Your task to perform on an android device: View the shopping cart on newegg. Add rayovac triple a to the cart on newegg, then select checkout. Image 0: 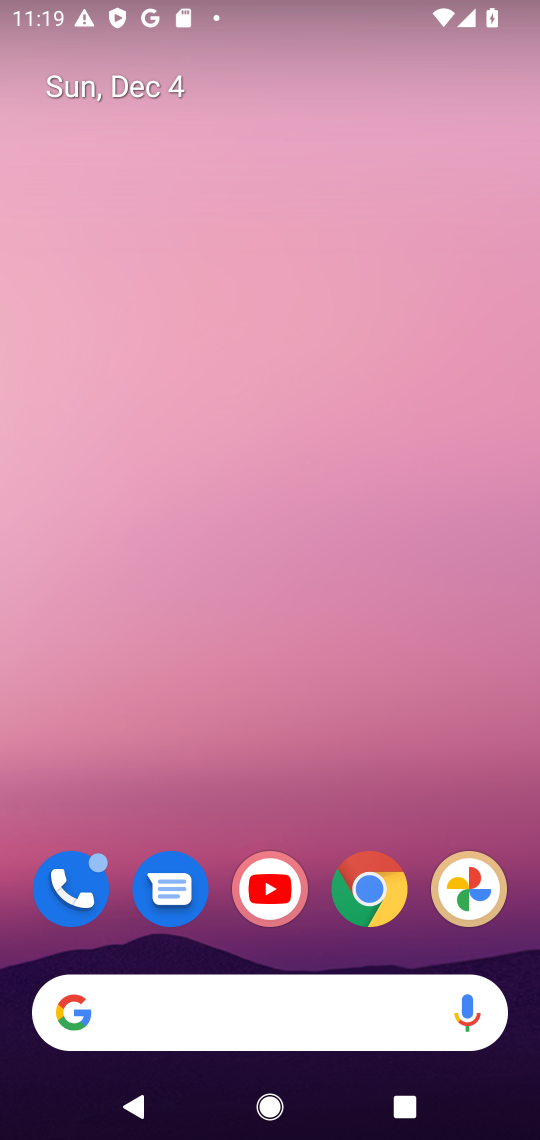
Step 0: click (368, 899)
Your task to perform on an android device: View the shopping cart on newegg. Add rayovac triple a to the cart on newegg, then select checkout. Image 1: 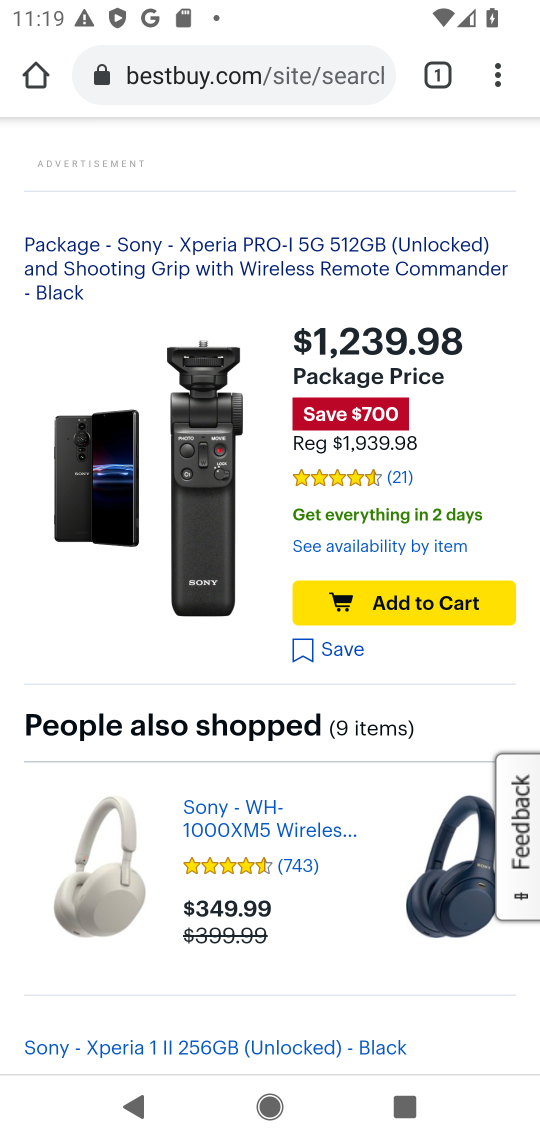
Step 1: click (309, 82)
Your task to perform on an android device: View the shopping cart on newegg. Add rayovac triple a to the cart on newegg, then select checkout. Image 2: 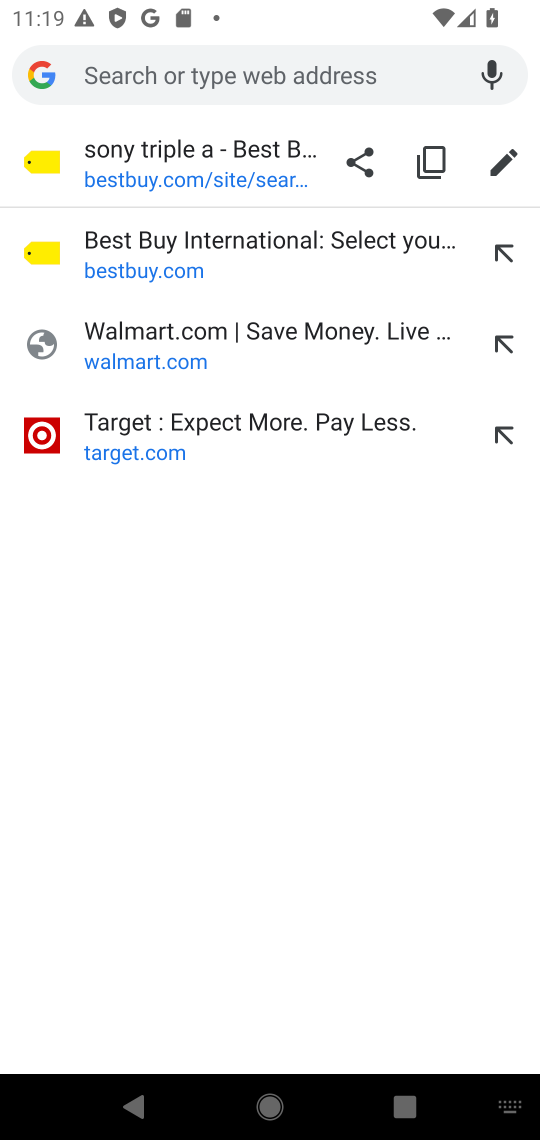
Step 2: press enter
Your task to perform on an android device: View the shopping cart on newegg. Add rayovac triple a to the cart on newegg, then select checkout. Image 3: 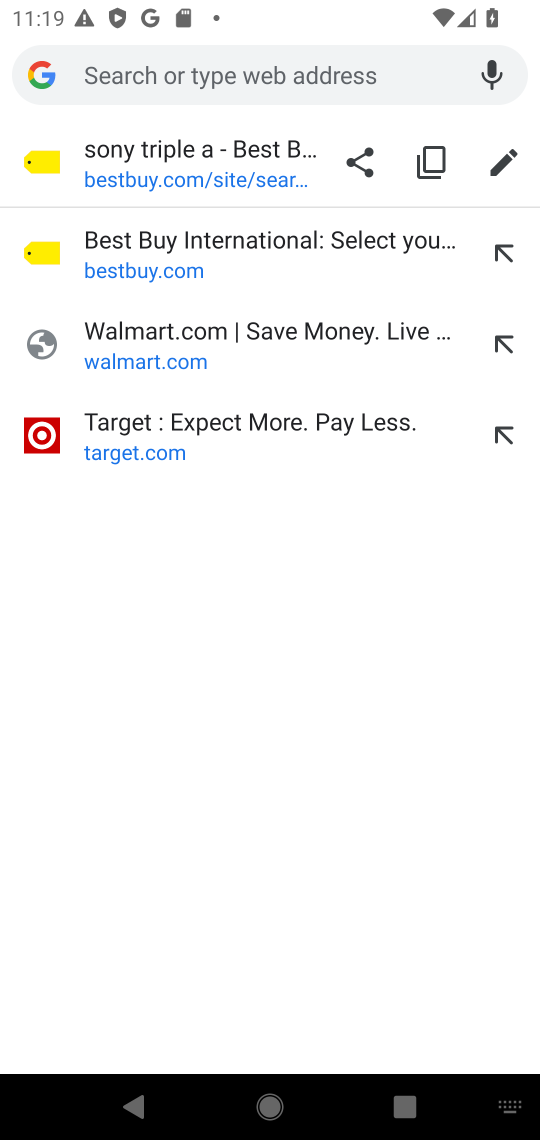
Step 3: type "newegg"
Your task to perform on an android device: View the shopping cart on newegg. Add rayovac triple a to the cart on newegg, then select checkout. Image 4: 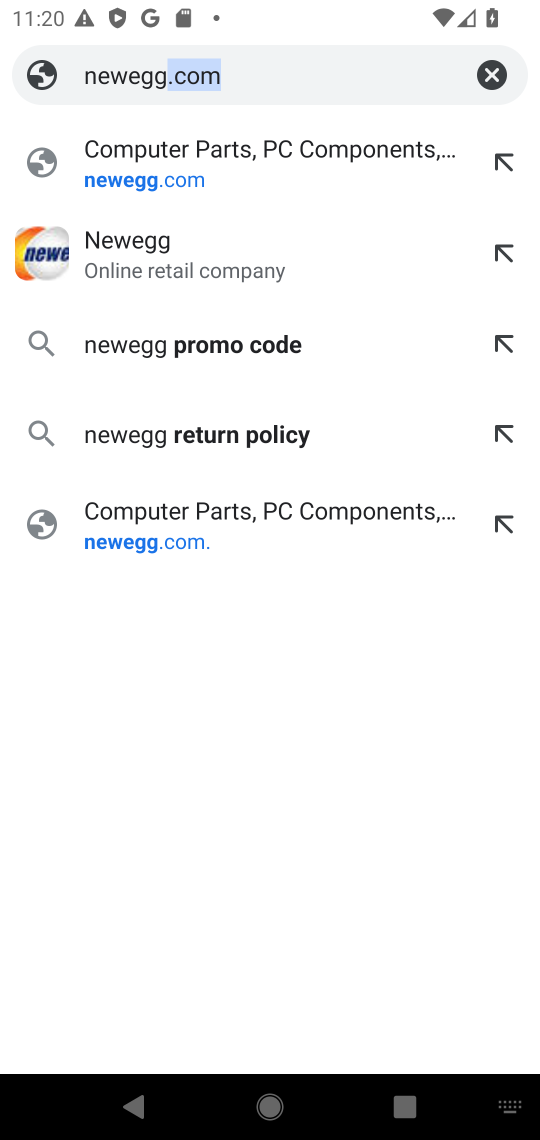
Step 4: click (343, 76)
Your task to perform on an android device: View the shopping cart on newegg. Add rayovac triple a to the cart on newegg, then select checkout. Image 5: 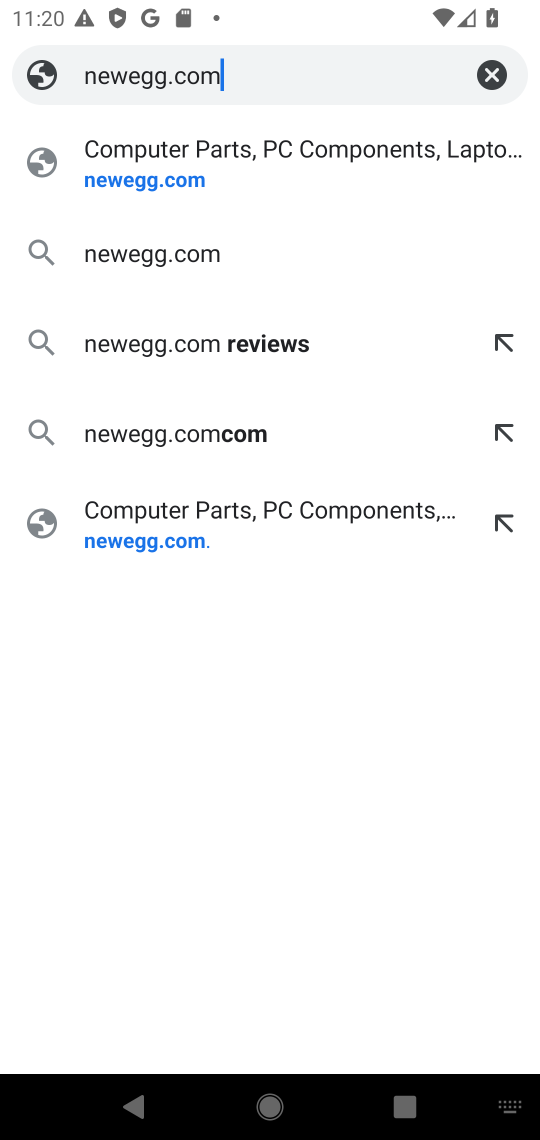
Step 5: click (192, 257)
Your task to perform on an android device: View the shopping cart on newegg. Add rayovac triple a to the cart on newegg, then select checkout. Image 6: 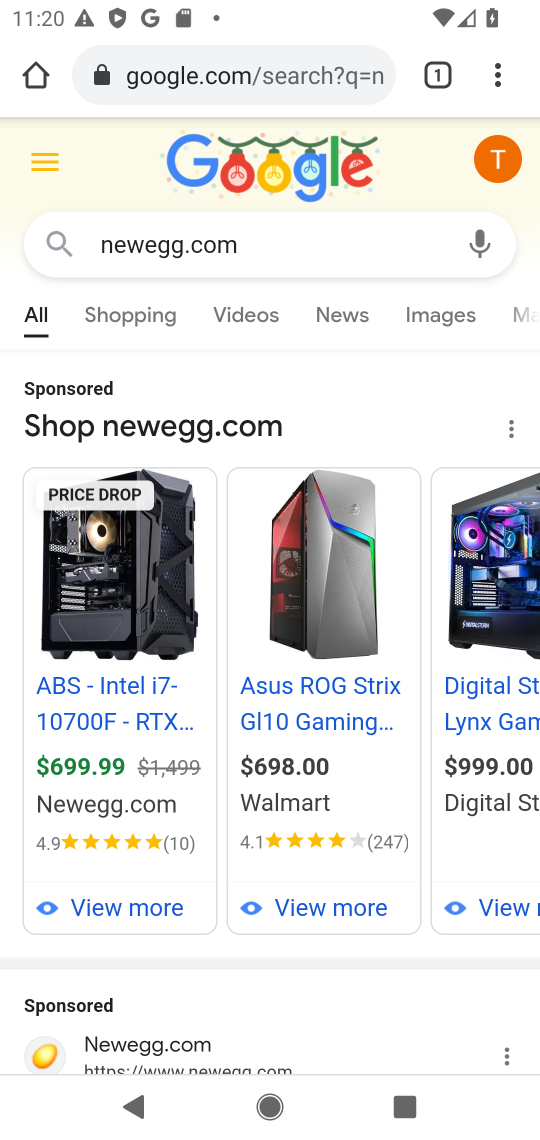
Step 6: drag from (346, 948) to (266, 339)
Your task to perform on an android device: View the shopping cart on newegg. Add rayovac triple a to the cart on newegg, then select checkout. Image 7: 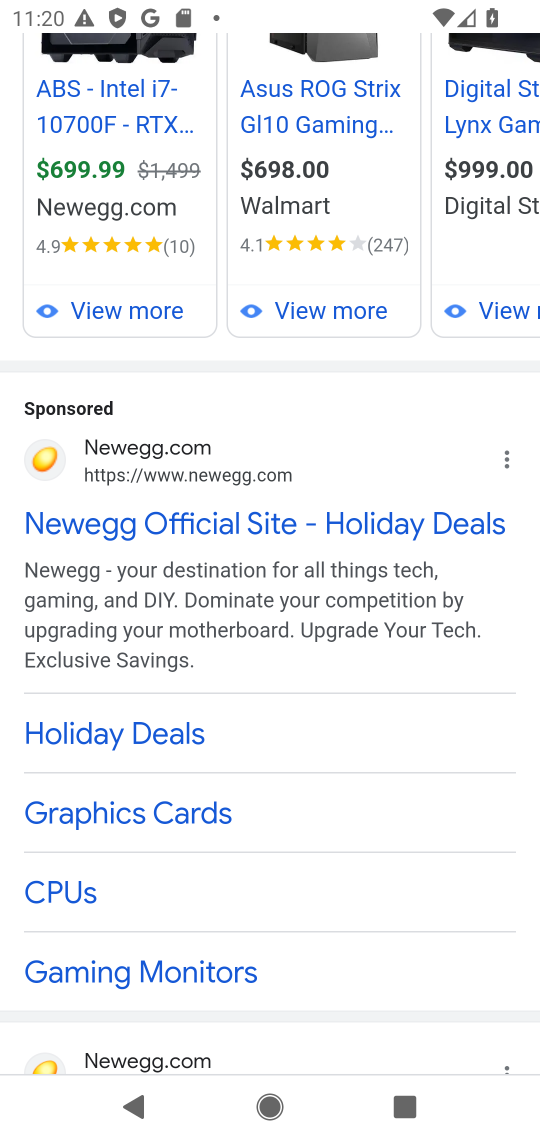
Step 7: click (231, 474)
Your task to perform on an android device: View the shopping cart on newegg. Add rayovac triple a to the cart on newegg, then select checkout. Image 8: 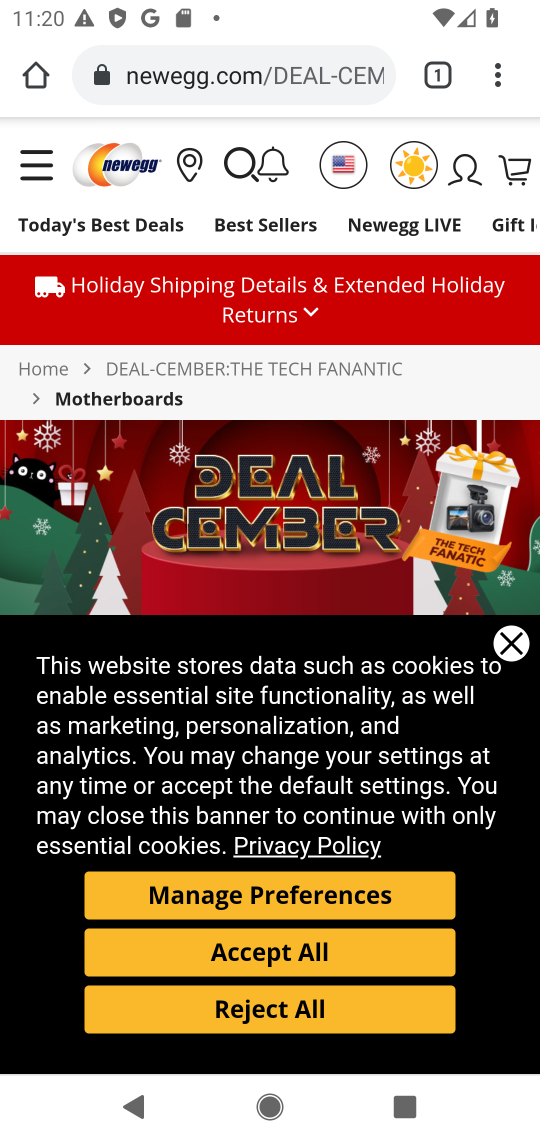
Step 8: click (275, 939)
Your task to perform on an android device: View the shopping cart on newegg. Add rayovac triple a to the cart on newegg, then select checkout. Image 9: 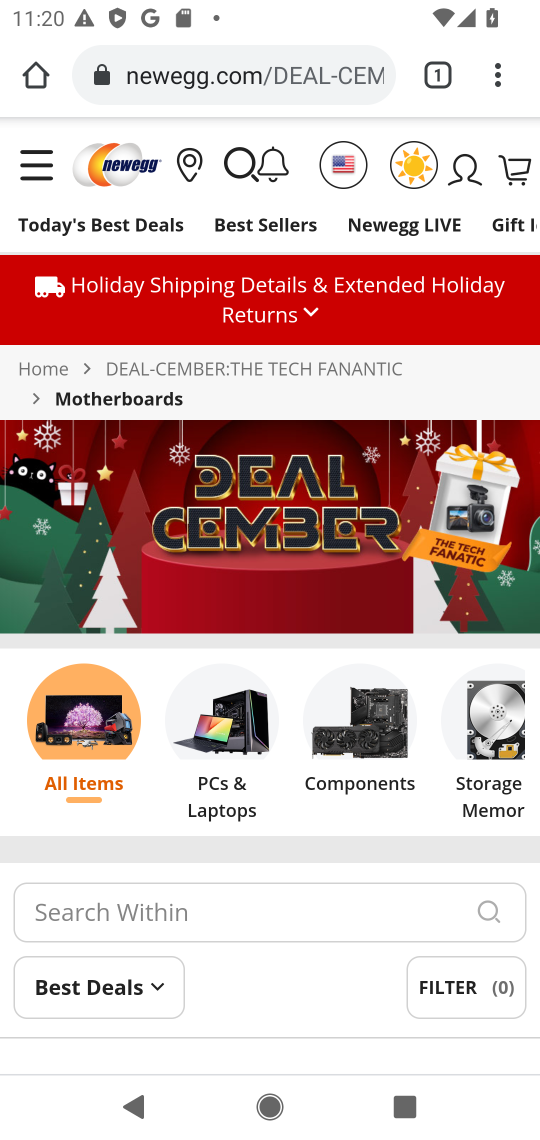
Step 9: click (239, 163)
Your task to perform on an android device: View the shopping cart on newegg. Add rayovac triple a to the cart on newegg, then select checkout. Image 10: 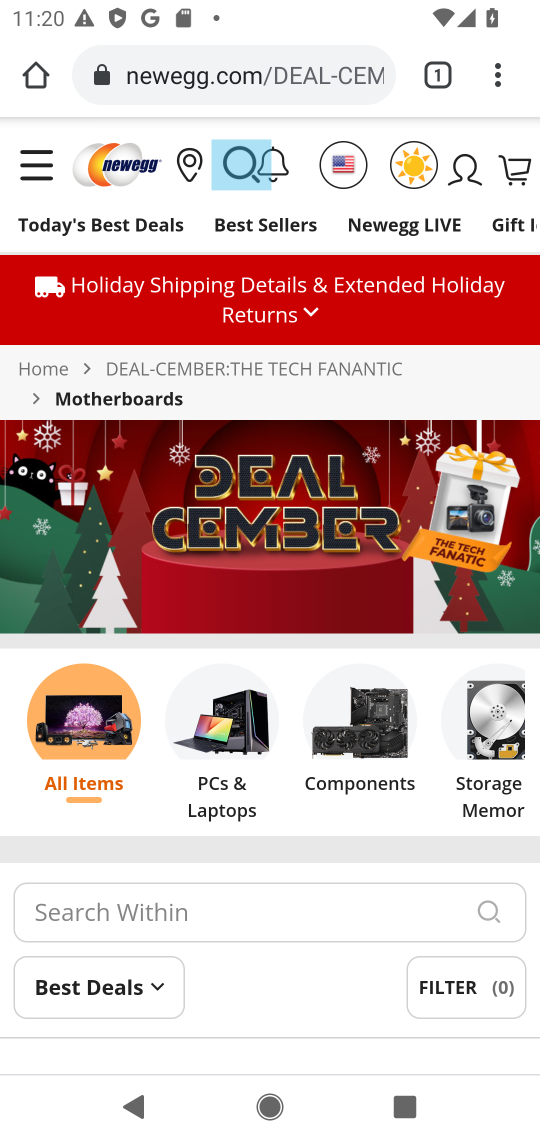
Step 10: click (236, 163)
Your task to perform on an android device: View the shopping cart on newegg. Add rayovac triple a to the cart on newegg, then select checkout. Image 11: 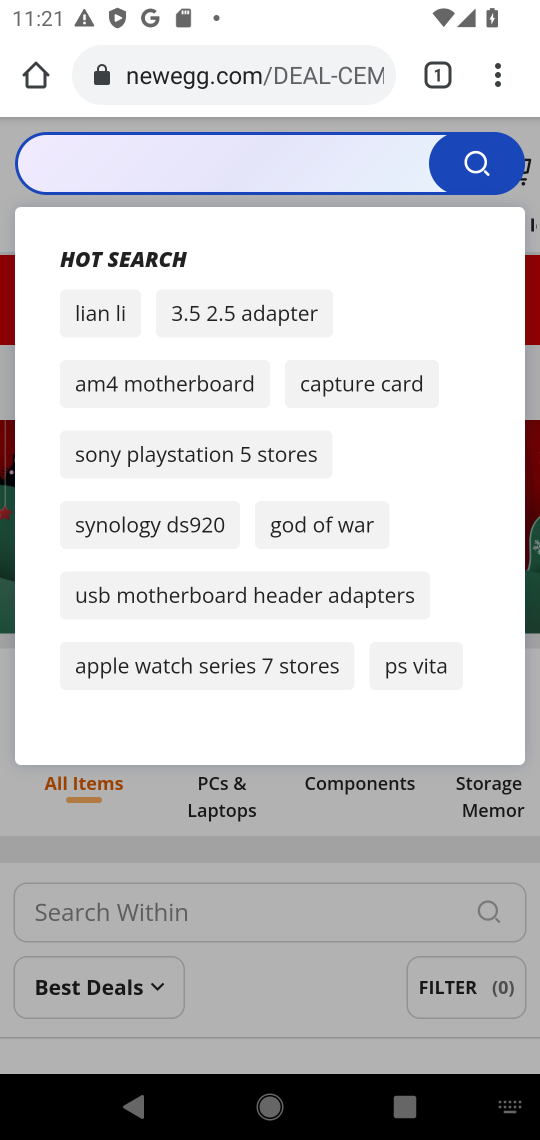
Step 11: type "rayovac triple a"
Your task to perform on an android device: View the shopping cart on newegg. Add rayovac triple a to the cart on newegg, then select checkout. Image 12: 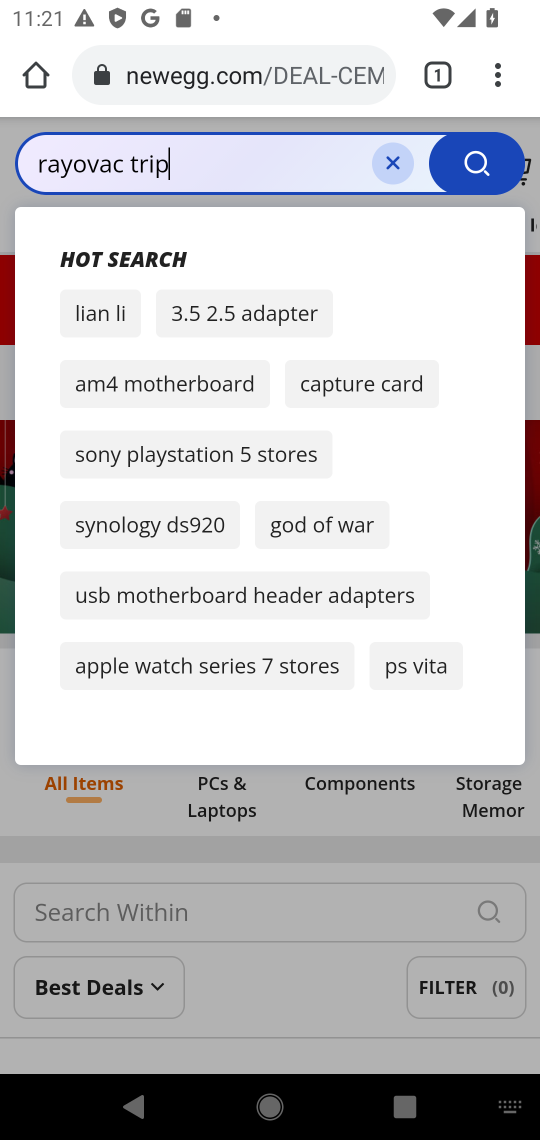
Step 12: press enter
Your task to perform on an android device: View the shopping cart on newegg. Add rayovac triple a to the cart on newegg, then select checkout. Image 13: 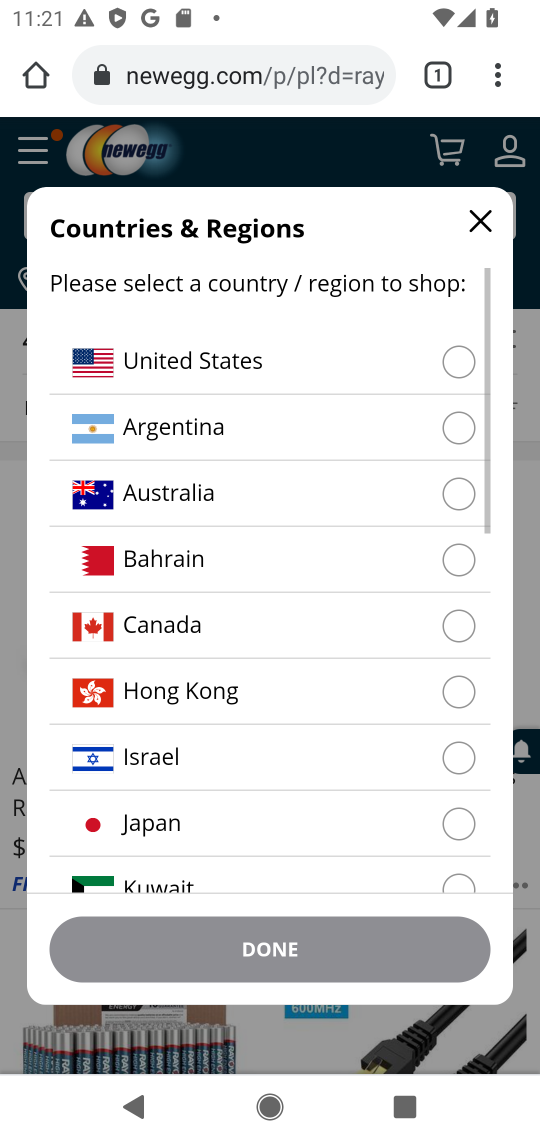
Step 13: click (454, 355)
Your task to perform on an android device: View the shopping cart on newegg. Add rayovac triple a to the cart on newegg, then select checkout. Image 14: 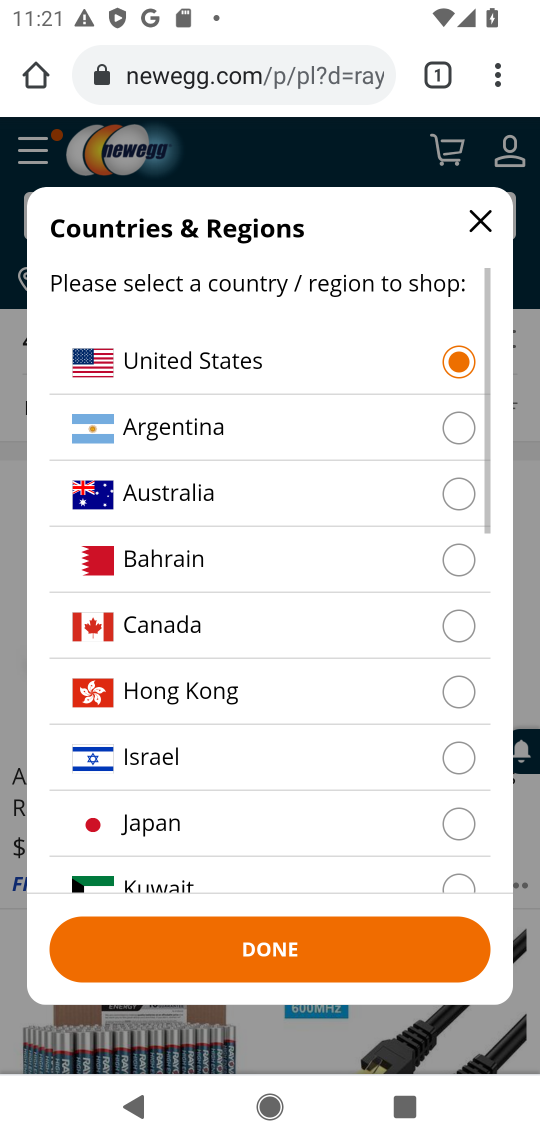
Step 14: click (368, 941)
Your task to perform on an android device: View the shopping cart on newegg. Add rayovac triple a to the cart on newegg, then select checkout. Image 15: 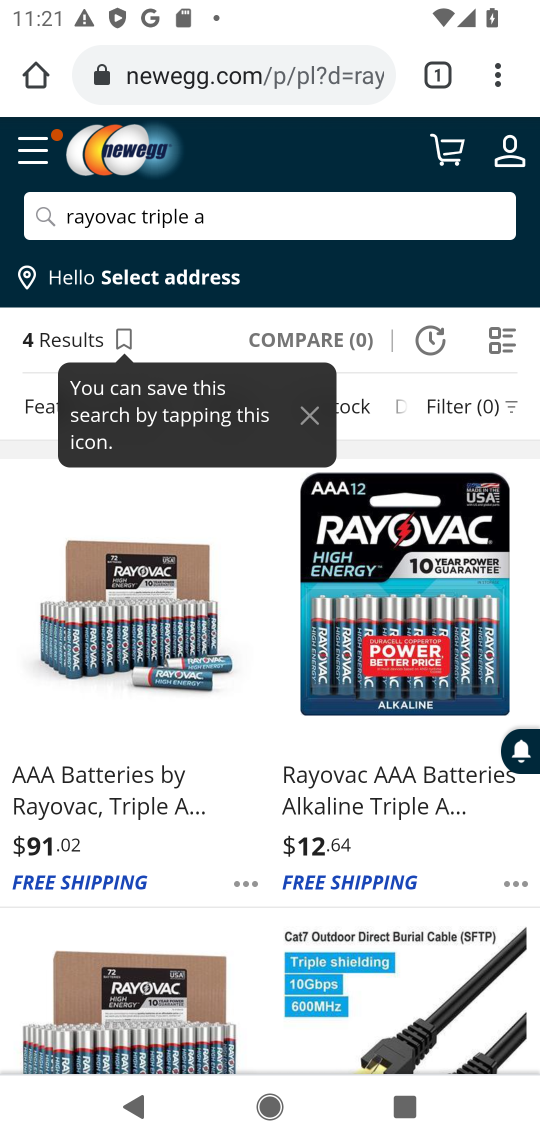
Step 15: click (128, 607)
Your task to perform on an android device: View the shopping cart on newegg. Add rayovac triple a to the cart on newegg, then select checkout. Image 16: 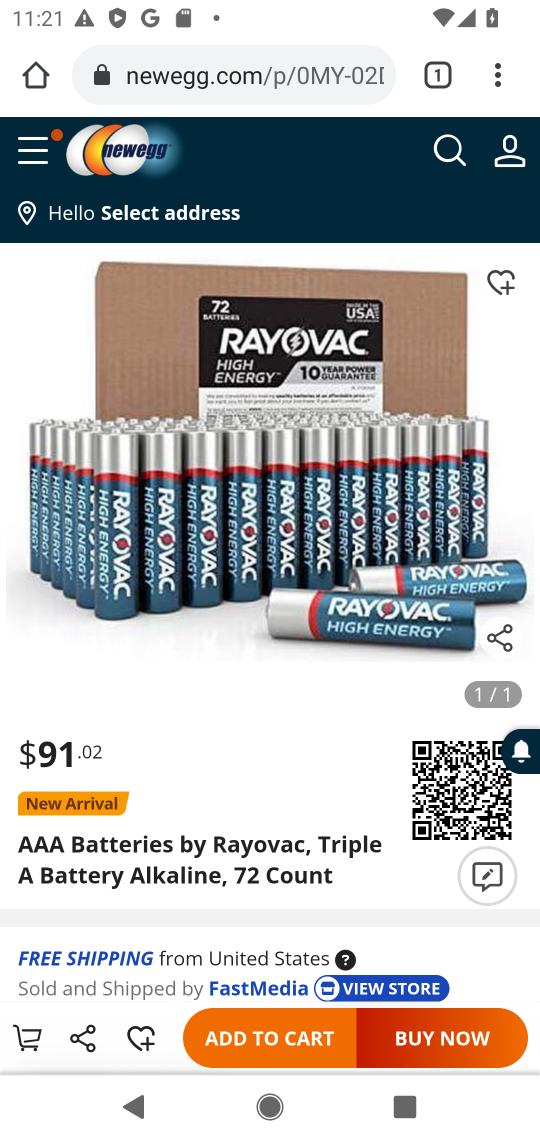
Step 16: click (272, 1038)
Your task to perform on an android device: View the shopping cart on newegg. Add rayovac triple a to the cart on newegg, then select checkout. Image 17: 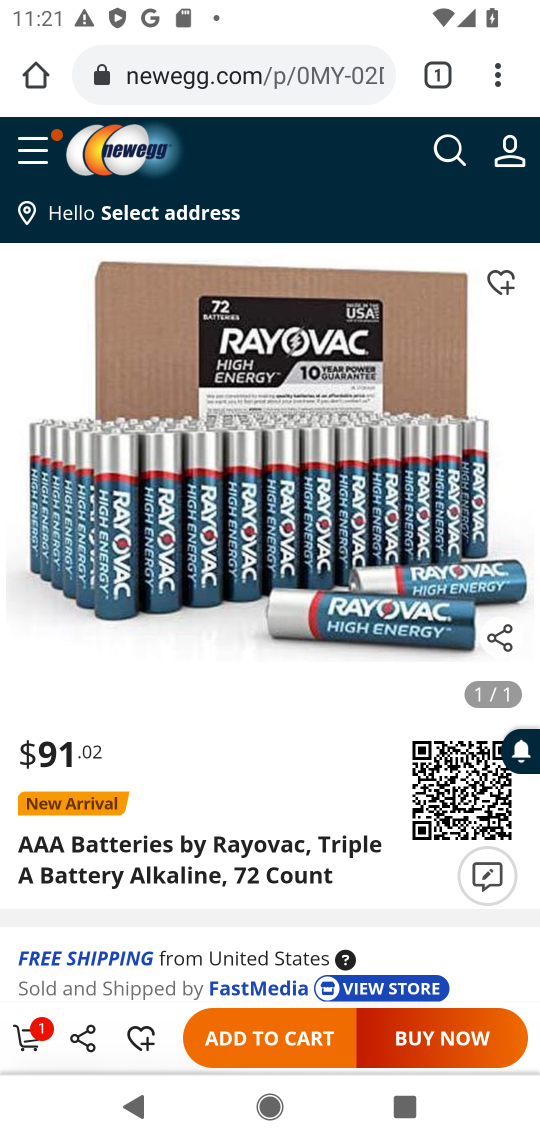
Step 17: click (34, 1041)
Your task to perform on an android device: View the shopping cart on newegg. Add rayovac triple a to the cart on newegg, then select checkout. Image 18: 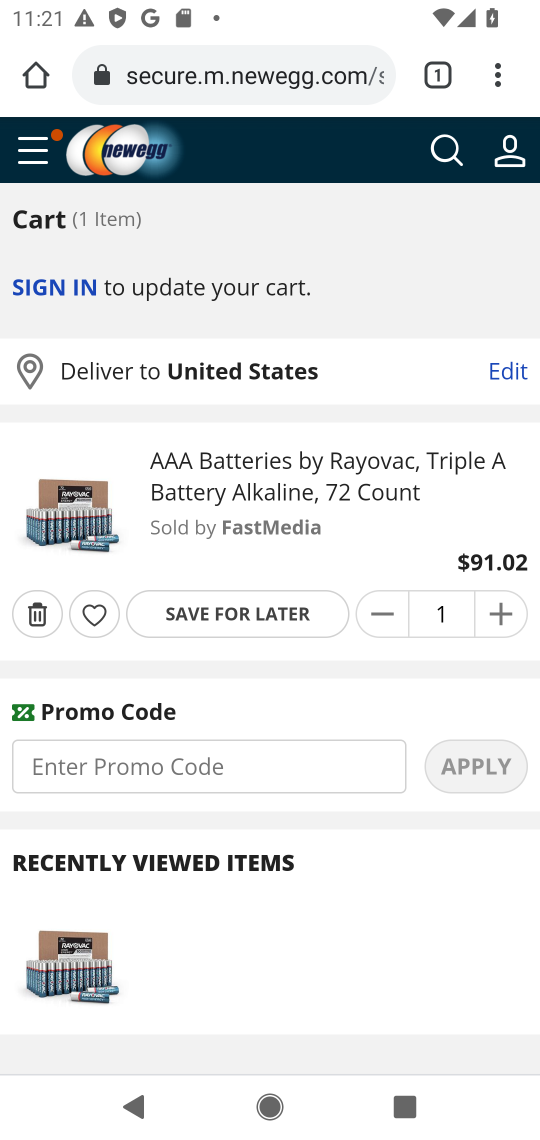
Step 18: drag from (374, 833) to (454, 215)
Your task to perform on an android device: View the shopping cart on newegg. Add rayovac triple a to the cart on newegg, then select checkout. Image 19: 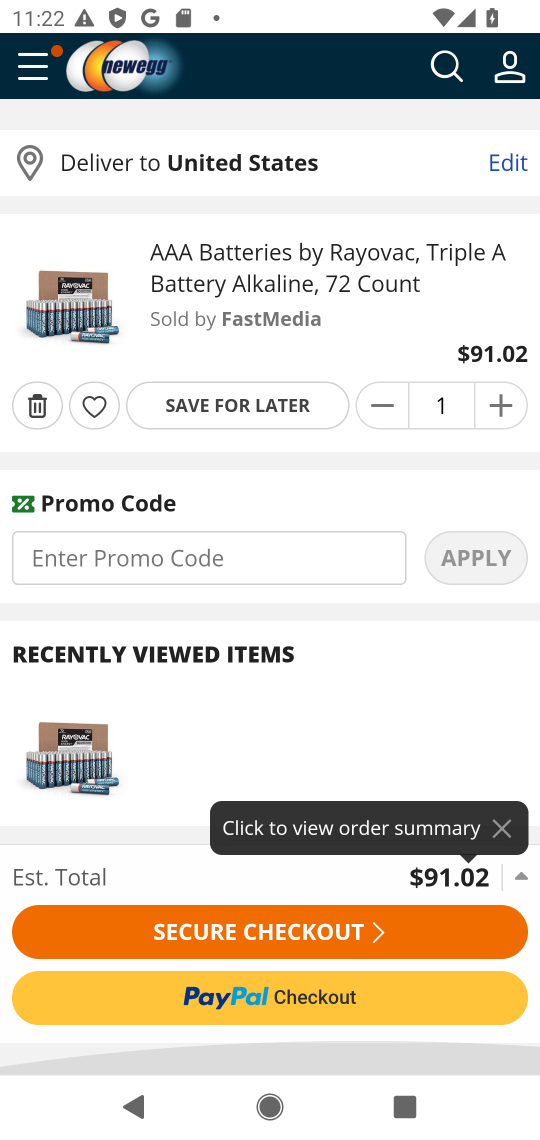
Step 19: click (309, 926)
Your task to perform on an android device: View the shopping cart on newegg. Add rayovac triple a to the cart on newegg, then select checkout. Image 20: 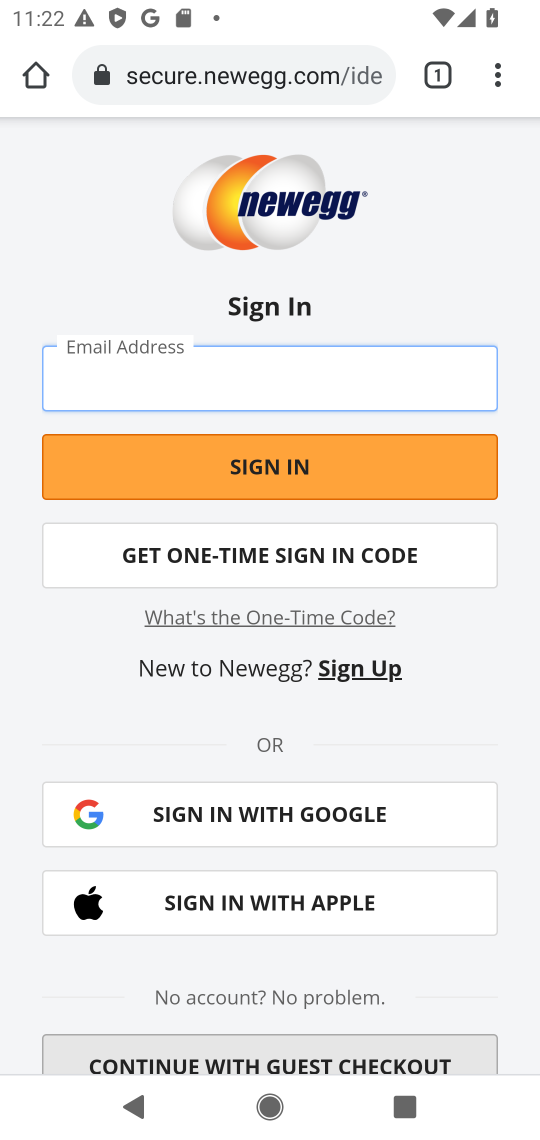
Step 20: task complete